Your task to perform on an android device: Go to sound settings Image 0: 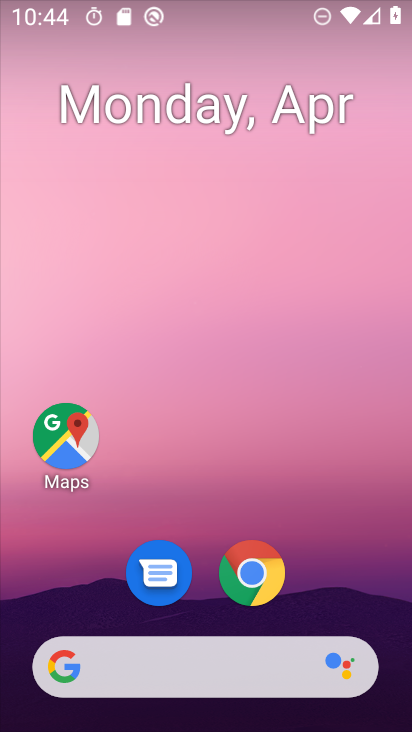
Step 0: drag from (338, 561) to (29, 19)
Your task to perform on an android device: Go to sound settings Image 1: 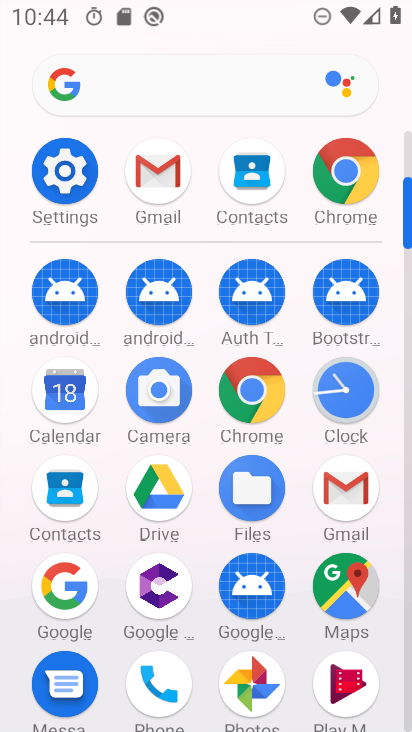
Step 1: click (50, 156)
Your task to perform on an android device: Go to sound settings Image 2: 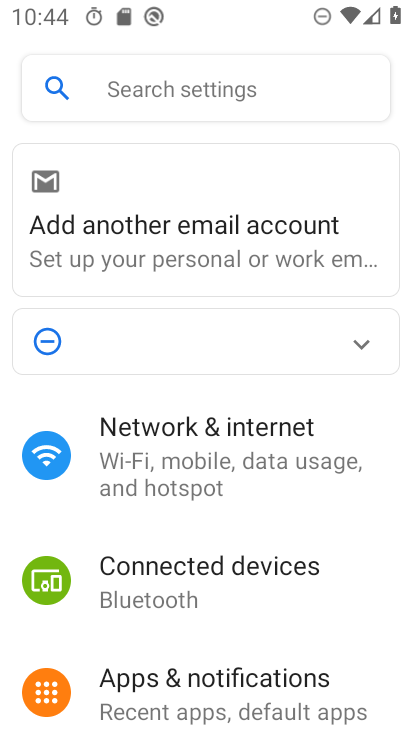
Step 2: drag from (269, 578) to (181, 234)
Your task to perform on an android device: Go to sound settings Image 3: 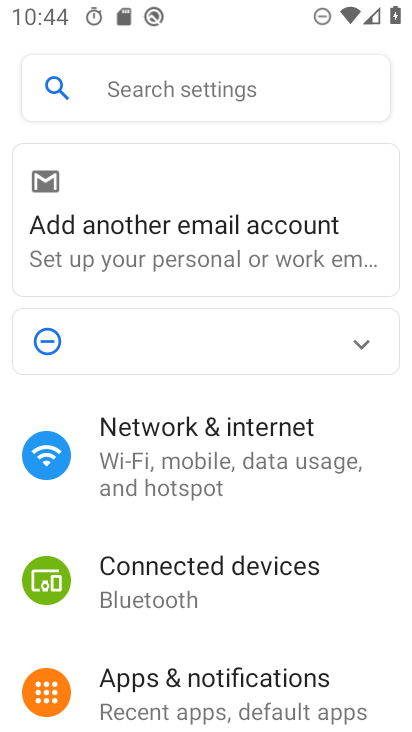
Step 3: drag from (217, 575) to (167, 339)
Your task to perform on an android device: Go to sound settings Image 4: 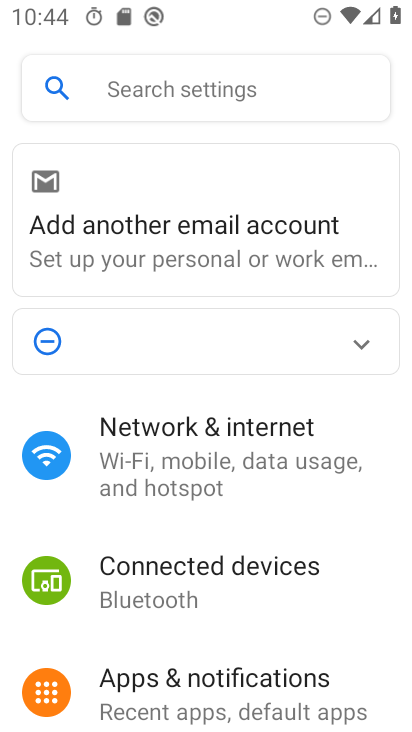
Step 4: drag from (269, 596) to (211, 270)
Your task to perform on an android device: Go to sound settings Image 5: 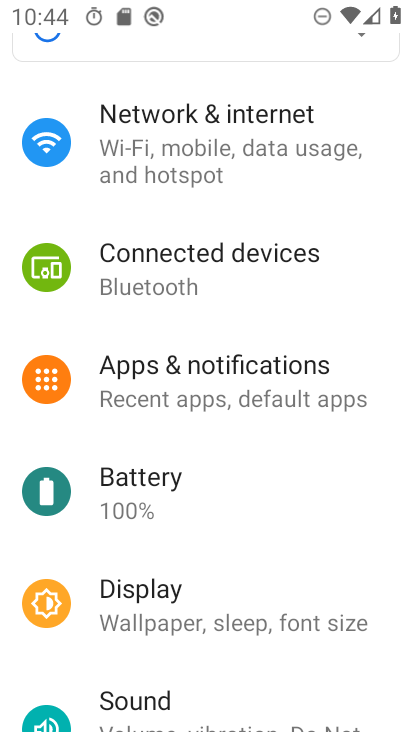
Step 5: drag from (216, 581) to (142, 240)
Your task to perform on an android device: Go to sound settings Image 6: 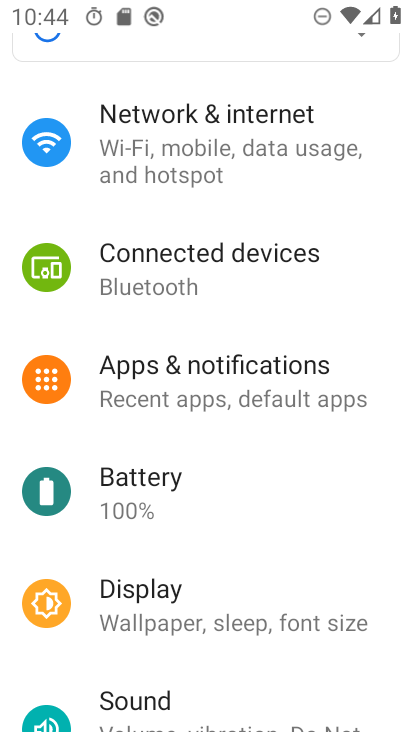
Step 6: drag from (255, 662) to (196, 366)
Your task to perform on an android device: Go to sound settings Image 7: 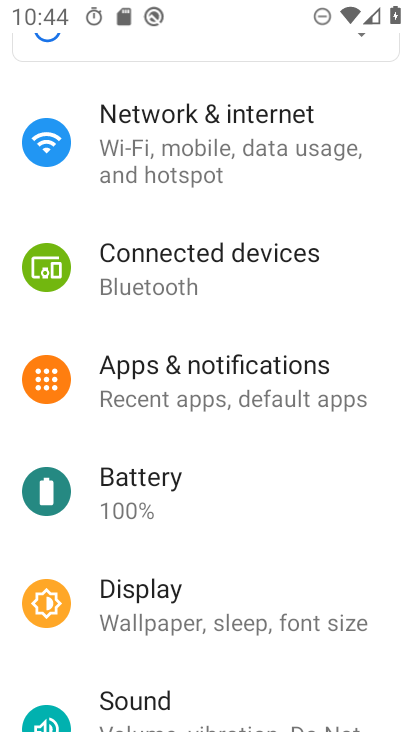
Step 7: drag from (193, 676) to (211, 219)
Your task to perform on an android device: Go to sound settings Image 8: 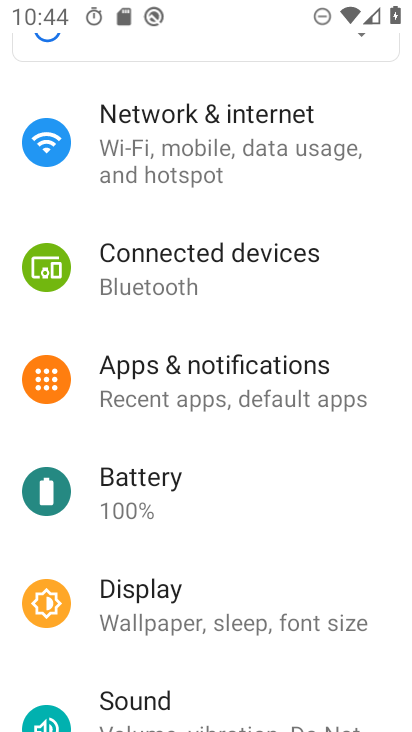
Step 8: drag from (259, 694) to (162, 181)
Your task to perform on an android device: Go to sound settings Image 9: 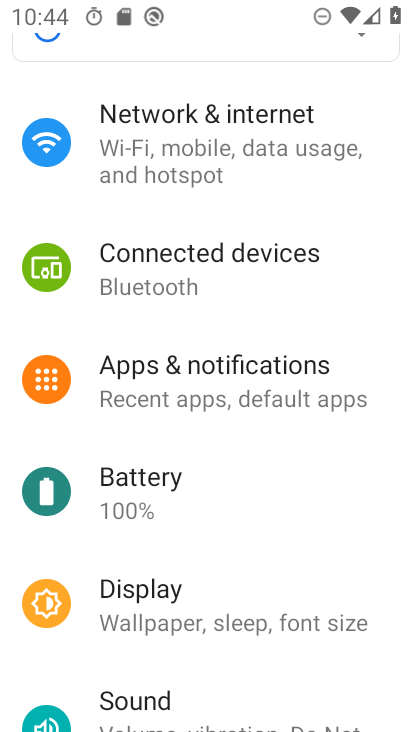
Step 9: drag from (199, 687) to (221, 90)
Your task to perform on an android device: Go to sound settings Image 10: 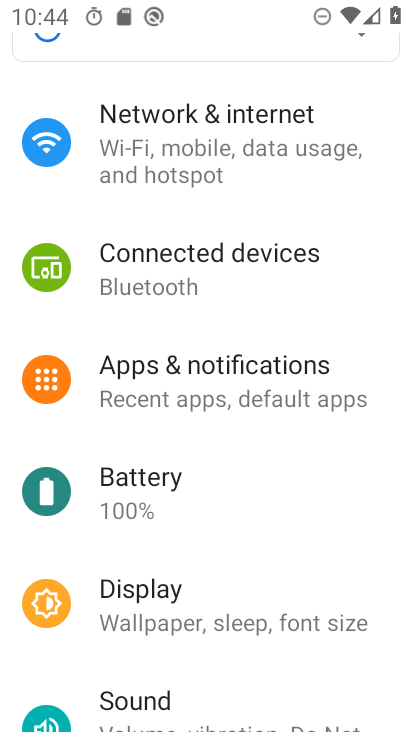
Step 10: drag from (260, 636) to (186, 185)
Your task to perform on an android device: Go to sound settings Image 11: 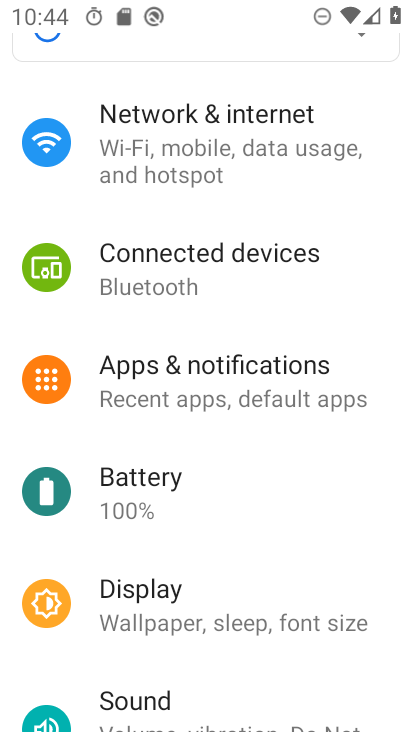
Step 11: drag from (251, 629) to (218, 173)
Your task to perform on an android device: Go to sound settings Image 12: 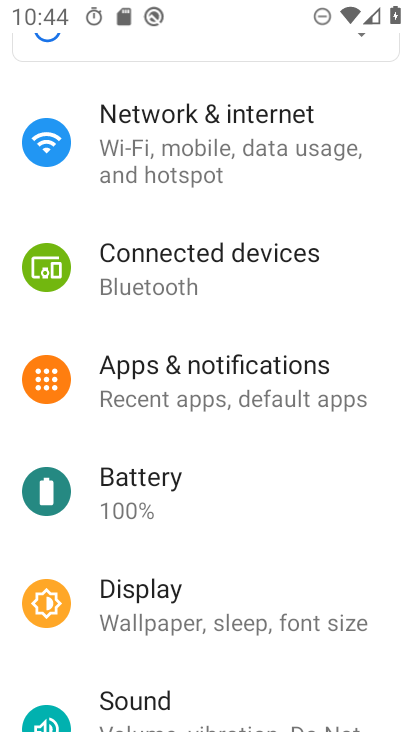
Step 12: drag from (219, 660) to (194, 186)
Your task to perform on an android device: Go to sound settings Image 13: 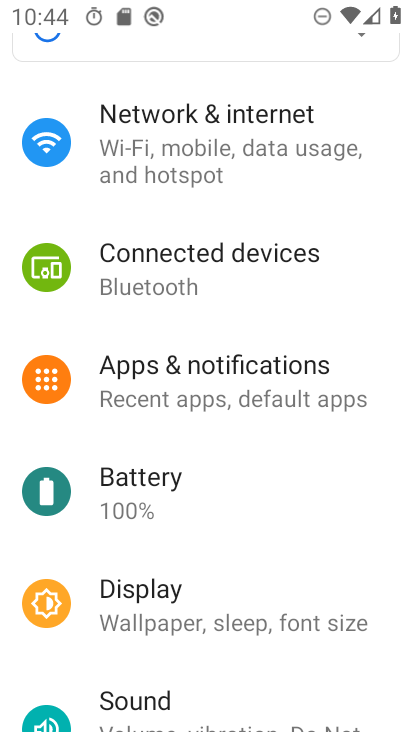
Step 13: drag from (278, 534) to (196, 106)
Your task to perform on an android device: Go to sound settings Image 14: 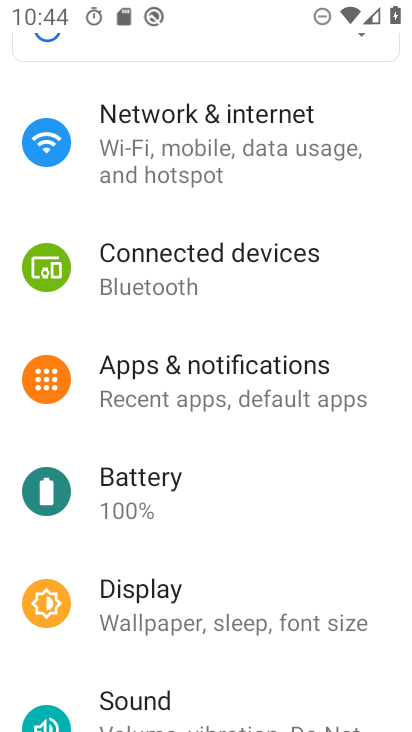
Step 14: drag from (242, 241) to (363, 578)
Your task to perform on an android device: Go to sound settings Image 15: 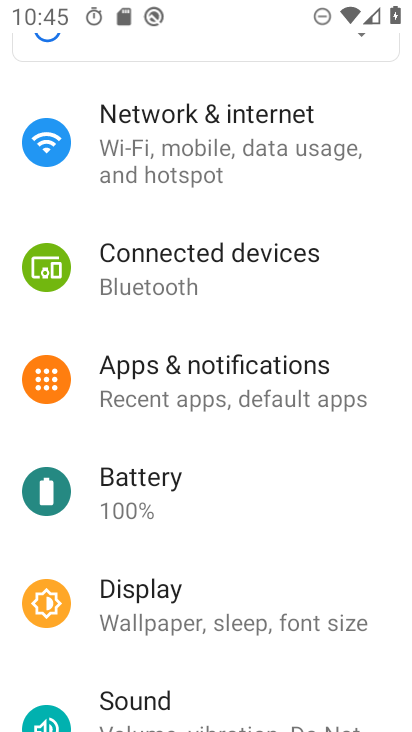
Step 15: drag from (263, 633) to (194, 145)
Your task to perform on an android device: Go to sound settings Image 16: 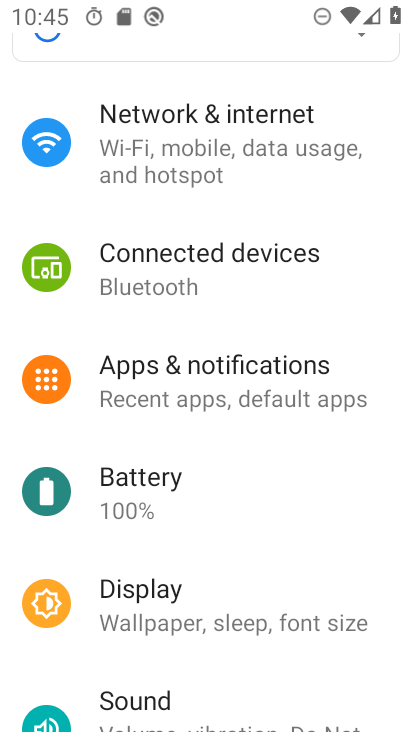
Step 16: drag from (361, 602) to (293, 156)
Your task to perform on an android device: Go to sound settings Image 17: 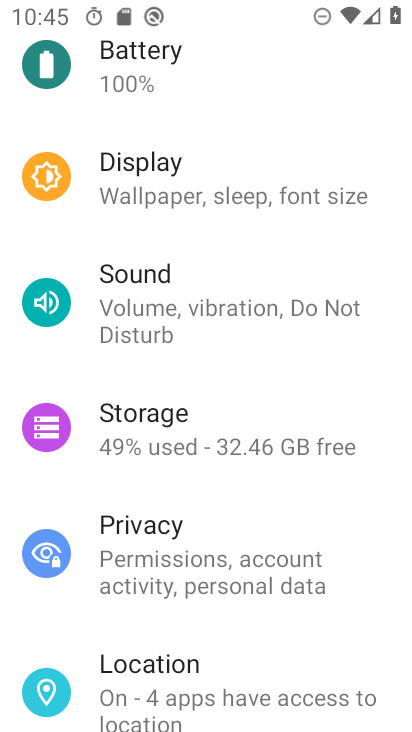
Step 17: click (167, 300)
Your task to perform on an android device: Go to sound settings Image 18: 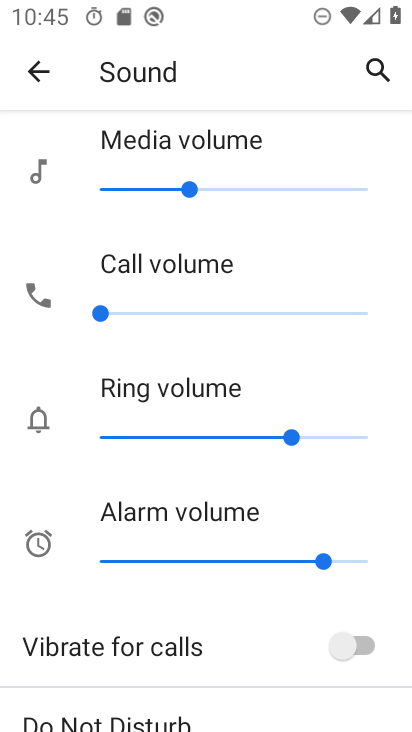
Step 18: task complete